Your task to perform on an android device: open a bookmark in the chrome app Image 0: 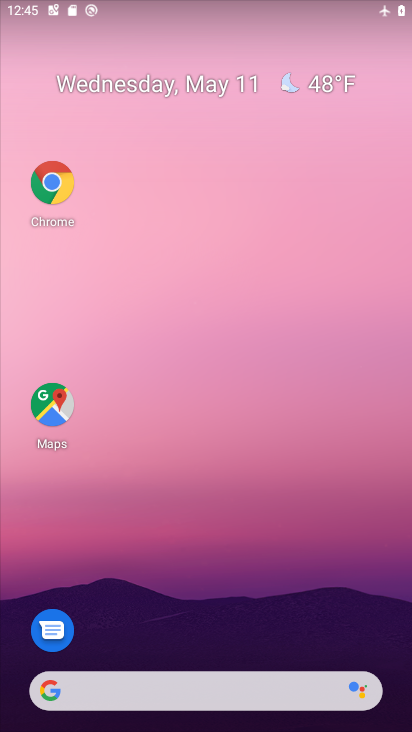
Step 0: click (39, 189)
Your task to perform on an android device: open a bookmark in the chrome app Image 1: 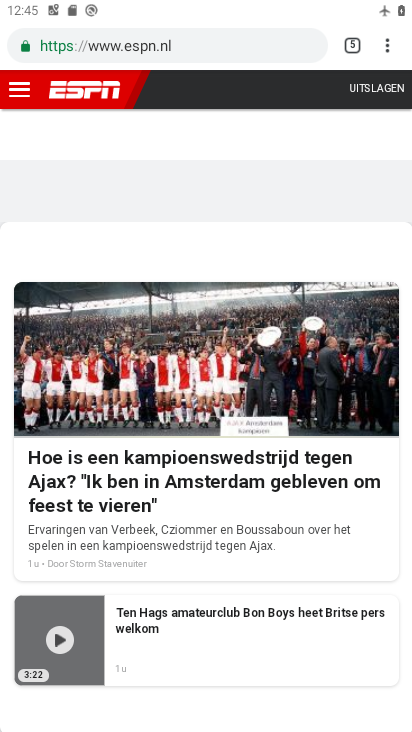
Step 1: click (356, 42)
Your task to perform on an android device: open a bookmark in the chrome app Image 2: 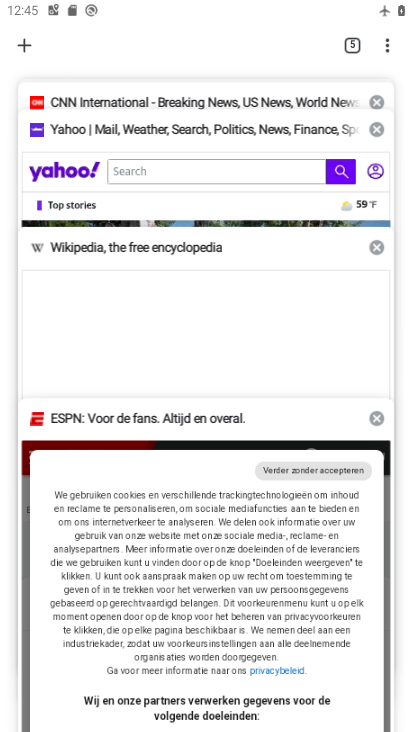
Step 2: click (388, 43)
Your task to perform on an android device: open a bookmark in the chrome app Image 3: 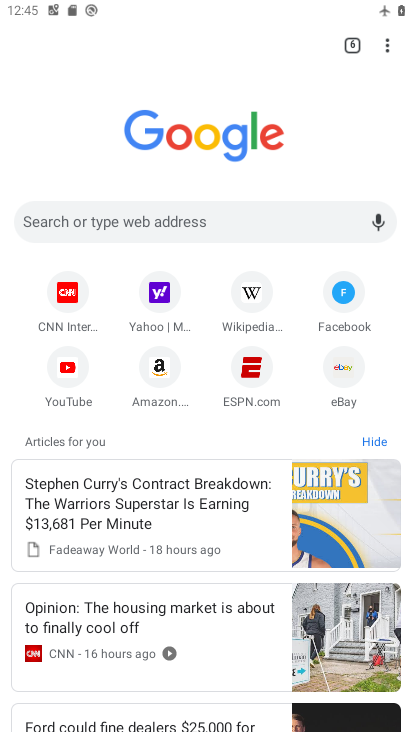
Step 3: click (385, 45)
Your task to perform on an android device: open a bookmark in the chrome app Image 4: 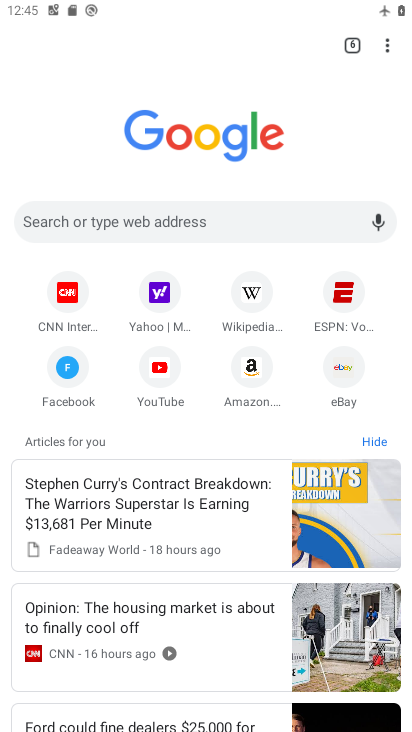
Step 4: task complete